Your task to perform on an android device: Go to Yahoo.com Image 0: 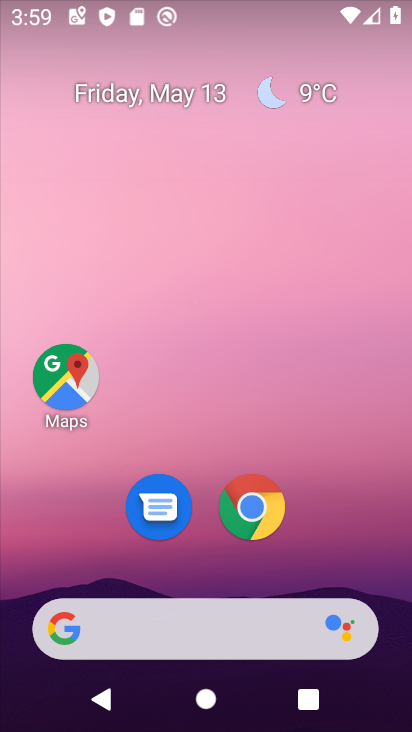
Step 0: drag from (352, 449) to (330, 31)
Your task to perform on an android device: Go to Yahoo.com Image 1: 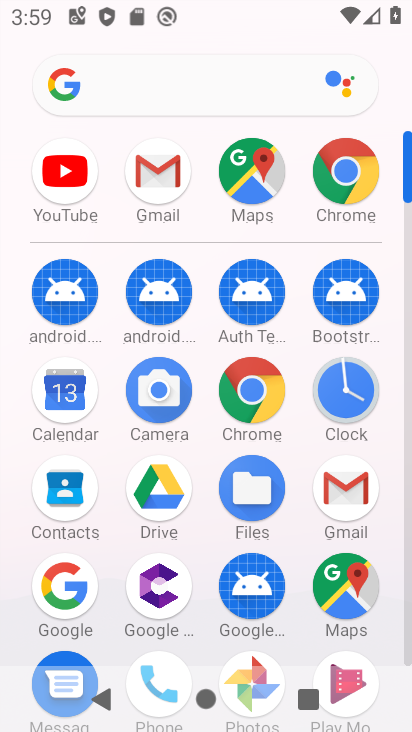
Step 1: click (355, 169)
Your task to perform on an android device: Go to Yahoo.com Image 2: 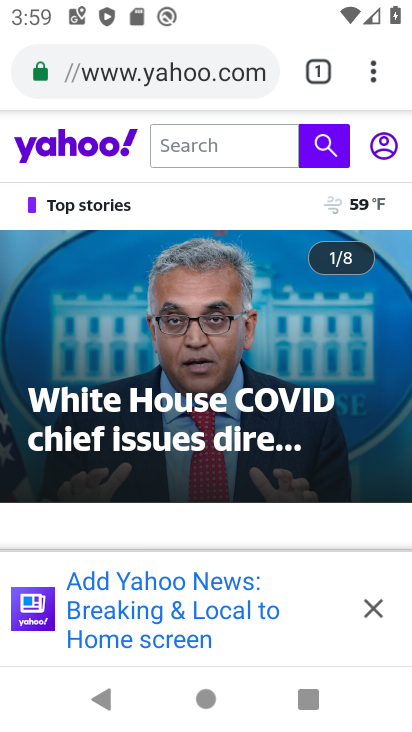
Step 2: task complete